Your task to perform on an android device: all mails in gmail Image 0: 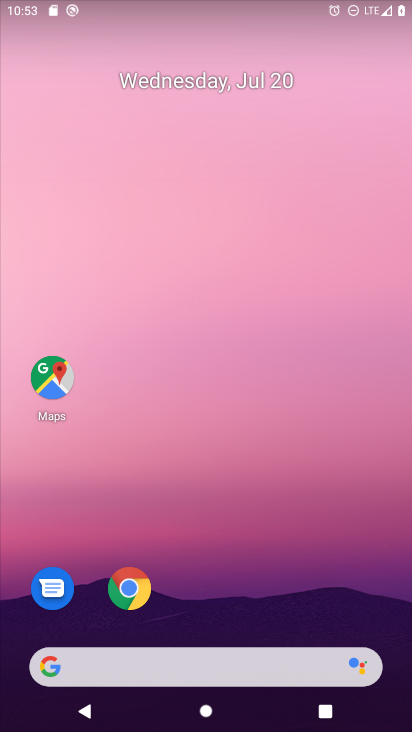
Step 0: drag from (213, 611) to (196, 112)
Your task to perform on an android device: all mails in gmail Image 1: 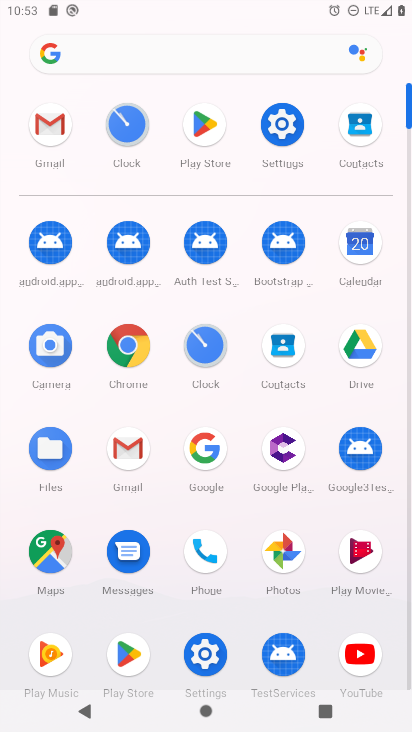
Step 1: click (52, 142)
Your task to perform on an android device: all mails in gmail Image 2: 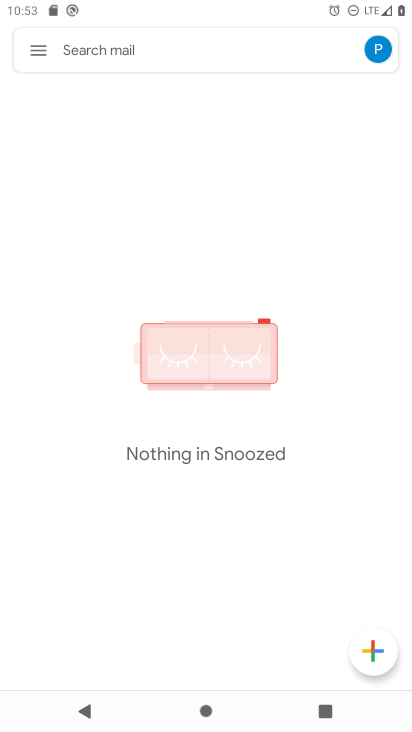
Step 2: click (44, 62)
Your task to perform on an android device: all mails in gmail Image 3: 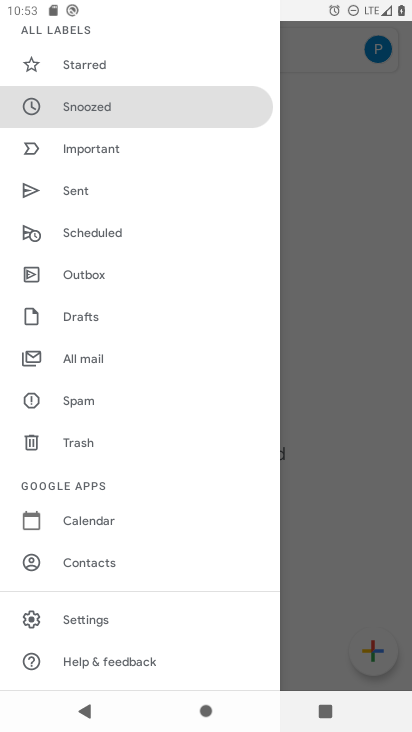
Step 3: click (94, 347)
Your task to perform on an android device: all mails in gmail Image 4: 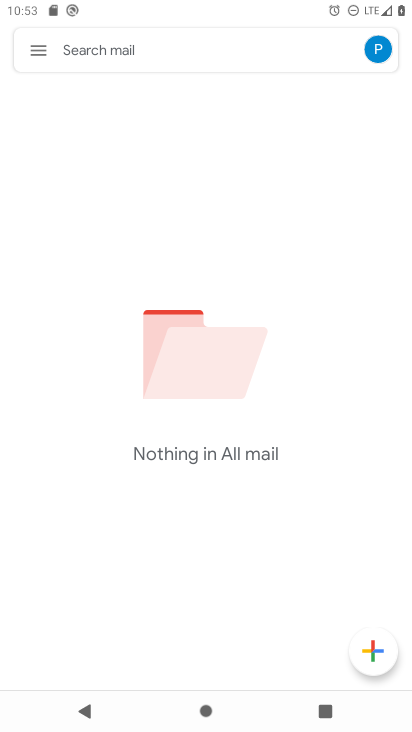
Step 4: click (94, 347)
Your task to perform on an android device: all mails in gmail Image 5: 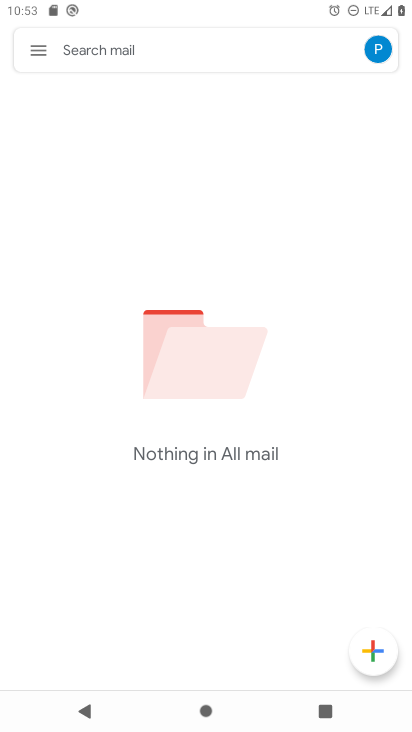
Step 5: task complete